Your task to perform on an android device: open device folders in google photos Image 0: 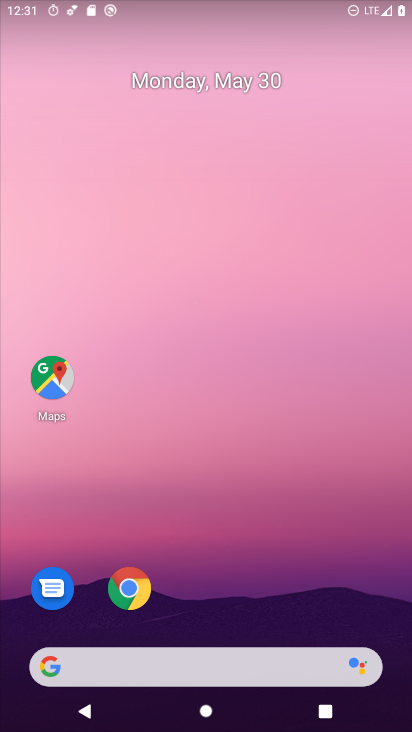
Step 0: drag from (247, 560) to (287, 163)
Your task to perform on an android device: open device folders in google photos Image 1: 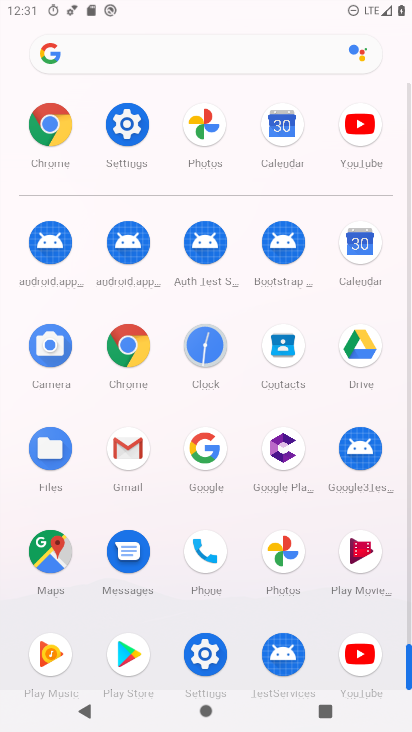
Step 1: click (287, 570)
Your task to perform on an android device: open device folders in google photos Image 2: 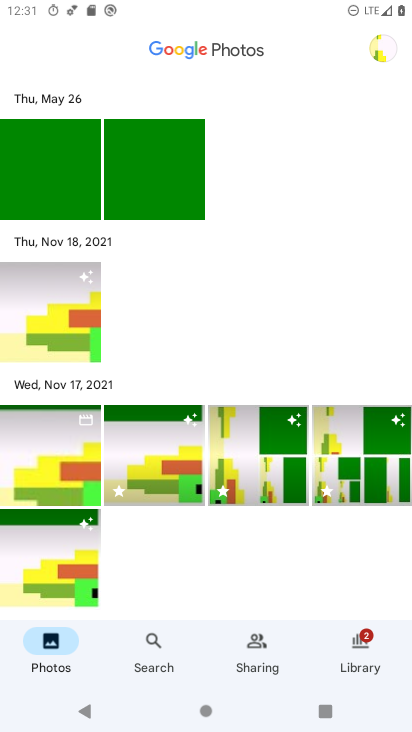
Step 2: click (162, 652)
Your task to perform on an android device: open device folders in google photos Image 3: 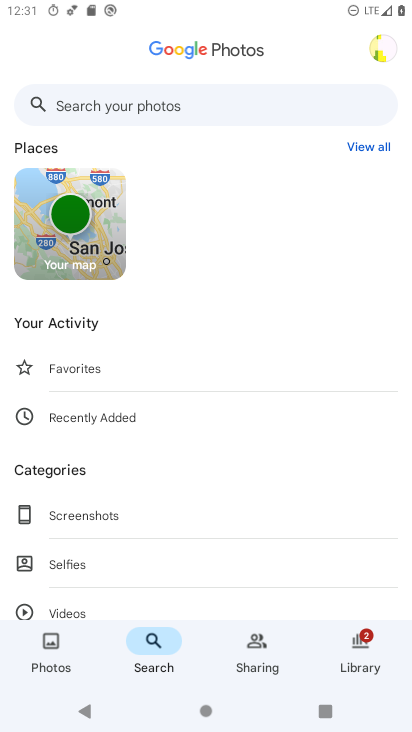
Step 3: click (258, 107)
Your task to perform on an android device: open device folders in google photos Image 4: 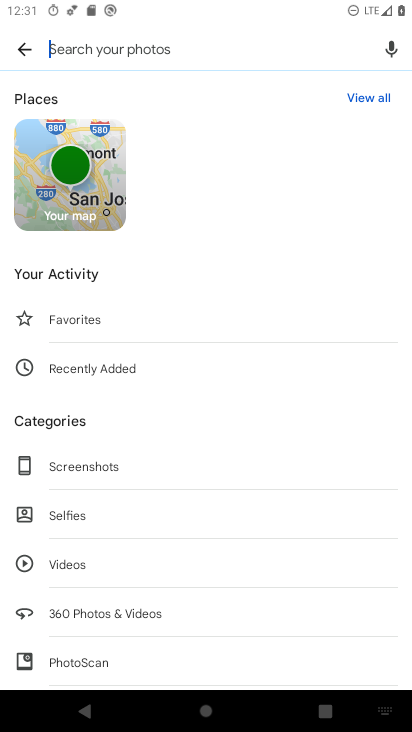
Step 4: type "device folders"
Your task to perform on an android device: open device folders in google photos Image 5: 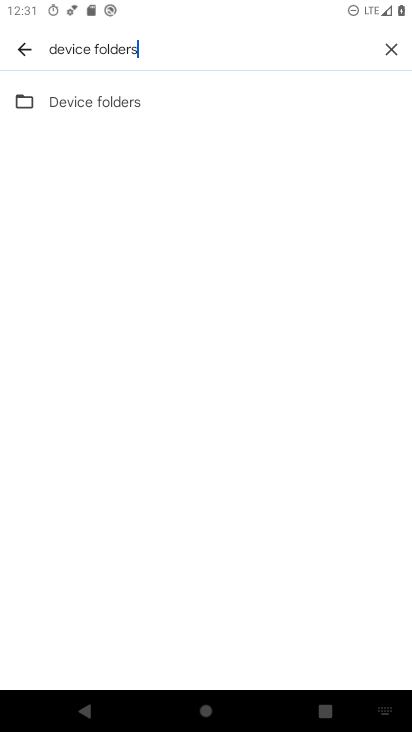
Step 5: type ""
Your task to perform on an android device: open device folders in google photos Image 6: 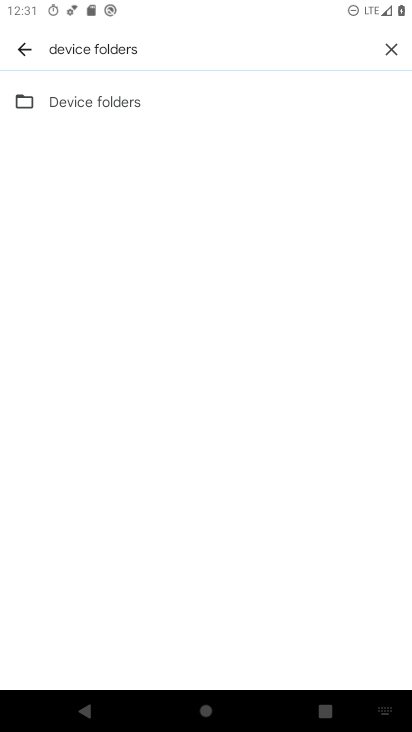
Step 6: click (156, 112)
Your task to perform on an android device: open device folders in google photos Image 7: 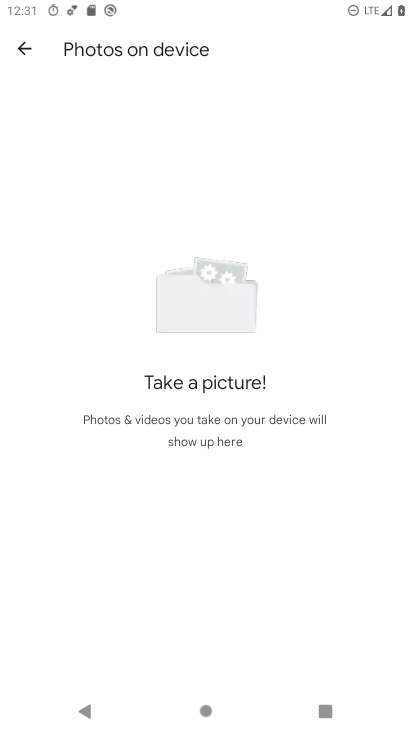
Step 7: task complete